Your task to perform on an android device: Open Youtube and go to the subscriptions tab Image 0: 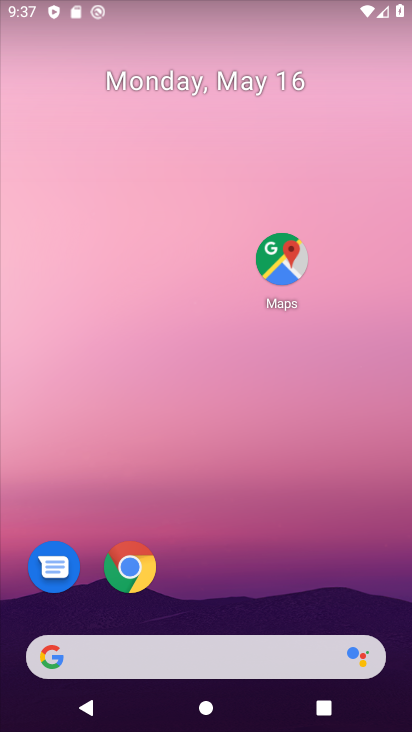
Step 0: drag from (221, 575) to (206, 70)
Your task to perform on an android device: Open Youtube and go to the subscriptions tab Image 1: 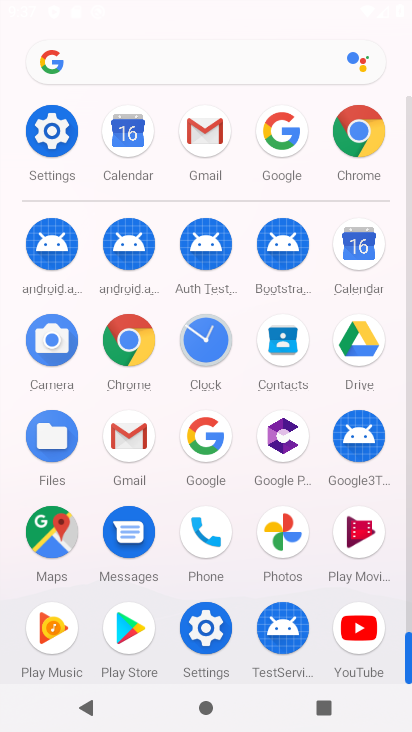
Step 1: click (365, 622)
Your task to perform on an android device: Open Youtube and go to the subscriptions tab Image 2: 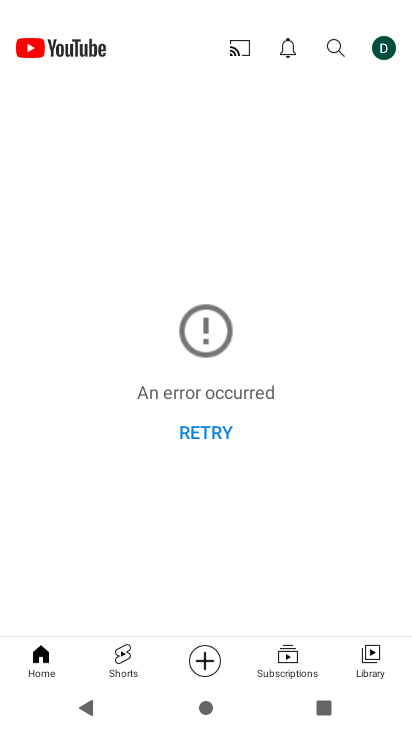
Step 2: click (291, 659)
Your task to perform on an android device: Open Youtube and go to the subscriptions tab Image 3: 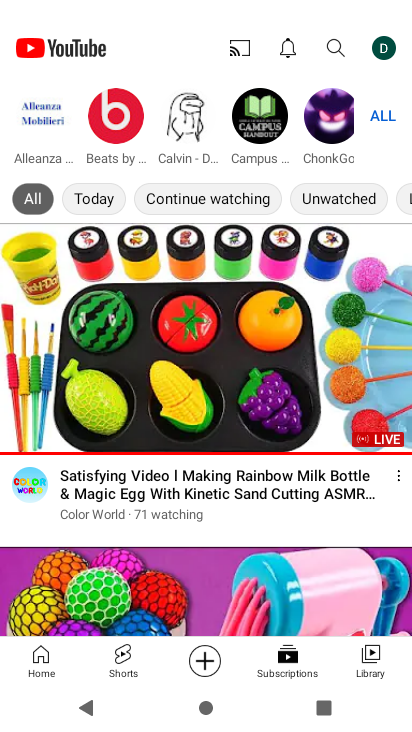
Step 3: task complete